Your task to perform on an android device: Go to internet settings Image 0: 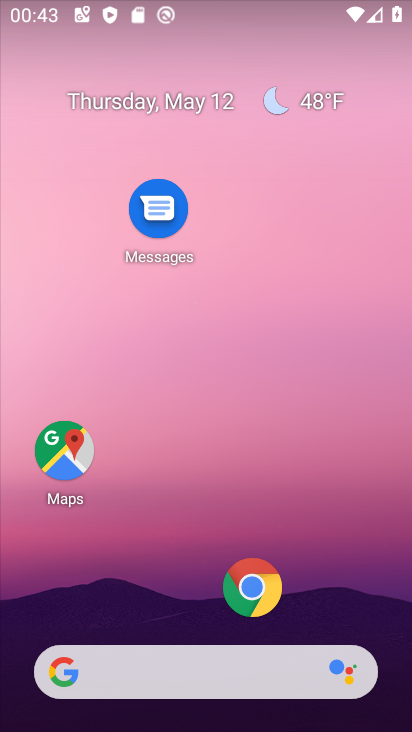
Step 0: drag from (192, 629) to (177, 89)
Your task to perform on an android device: Go to internet settings Image 1: 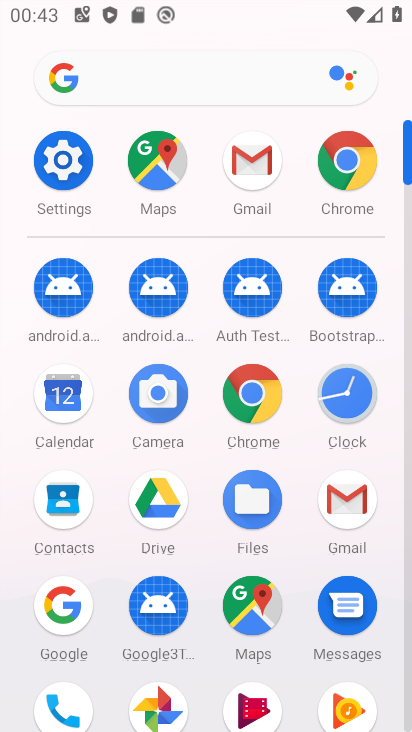
Step 1: click (49, 172)
Your task to perform on an android device: Go to internet settings Image 2: 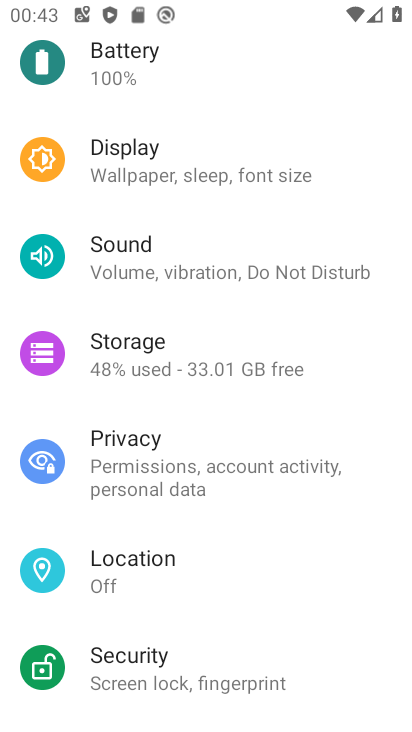
Step 2: drag from (160, 130) to (172, 420)
Your task to perform on an android device: Go to internet settings Image 3: 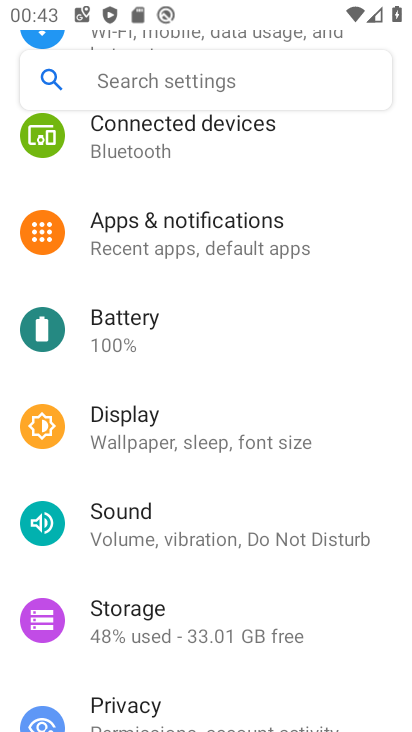
Step 3: drag from (127, 119) to (116, 631)
Your task to perform on an android device: Go to internet settings Image 4: 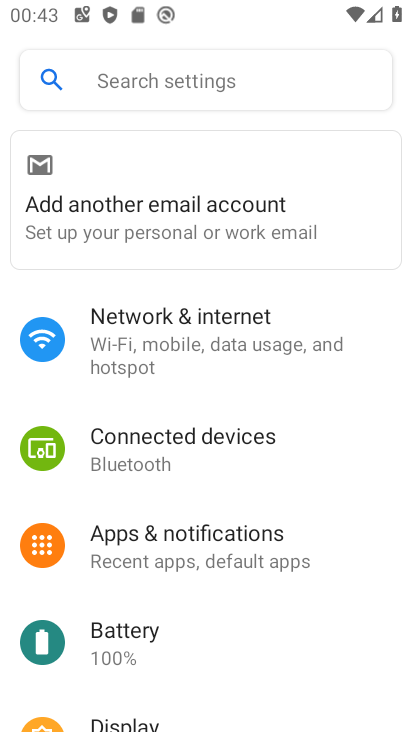
Step 4: click (158, 326)
Your task to perform on an android device: Go to internet settings Image 5: 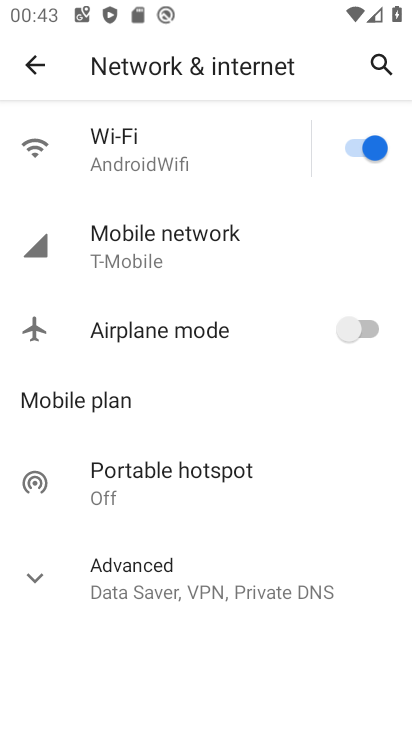
Step 5: click (177, 220)
Your task to perform on an android device: Go to internet settings Image 6: 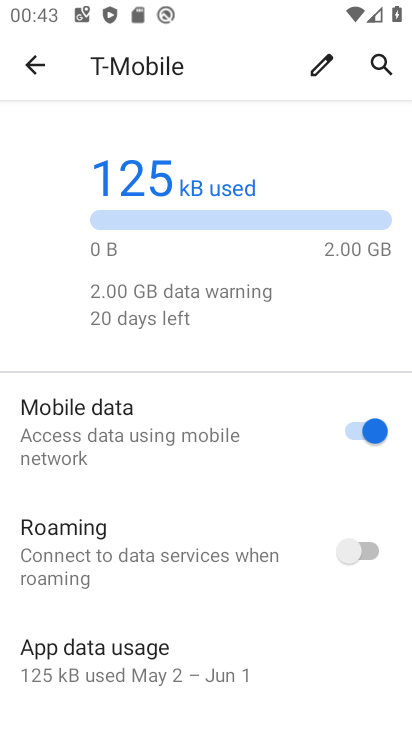
Step 6: task complete